Your task to perform on an android device: Open Google Chrome and open the bookmarks view Image 0: 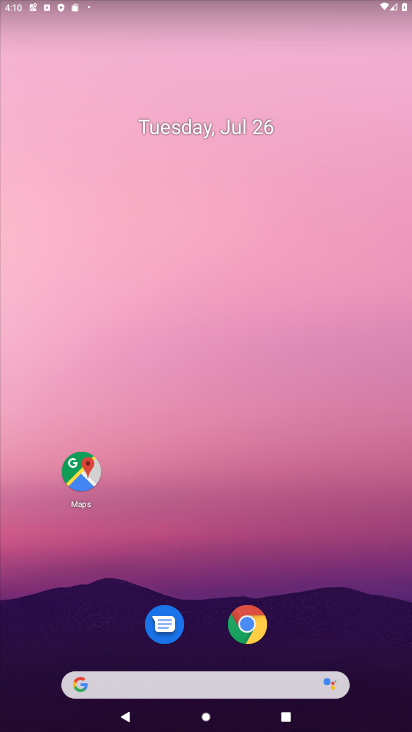
Step 0: drag from (315, 680) to (328, 10)
Your task to perform on an android device: Open Google Chrome and open the bookmarks view Image 1: 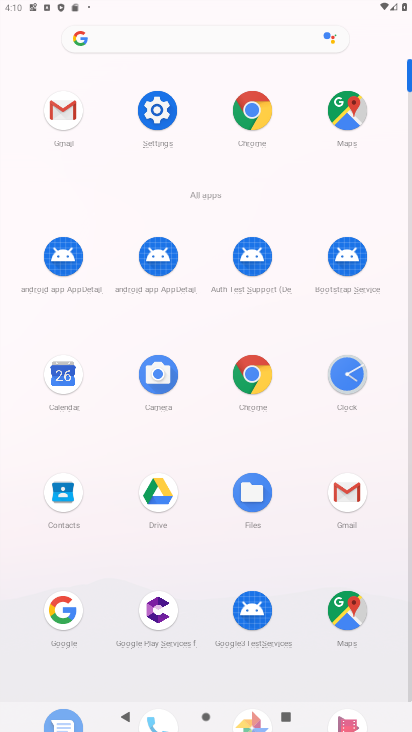
Step 1: click (261, 372)
Your task to perform on an android device: Open Google Chrome and open the bookmarks view Image 2: 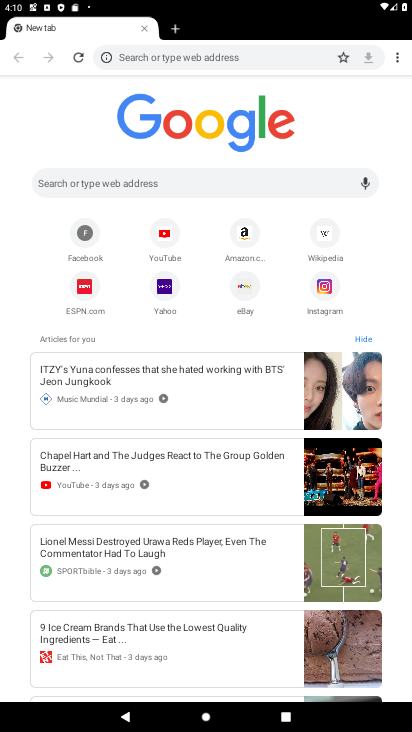
Step 2: task complete